Your task to perform on an android device: toggle notification dots Image 0: 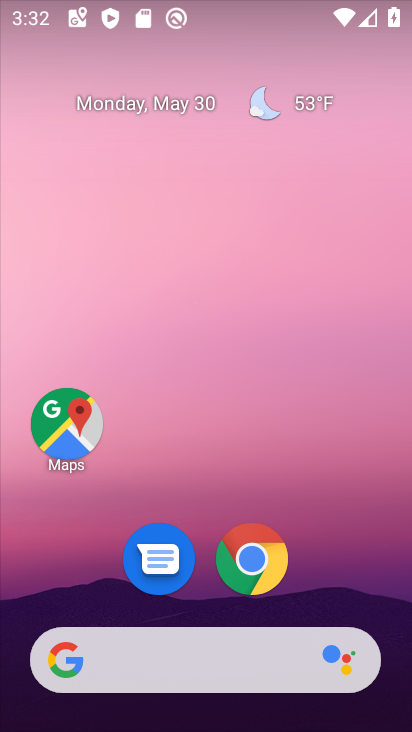
Step 0: drag from (228, 726) to (229, 32)
Your task to perform on an android device: toggle notification dots Image 1: 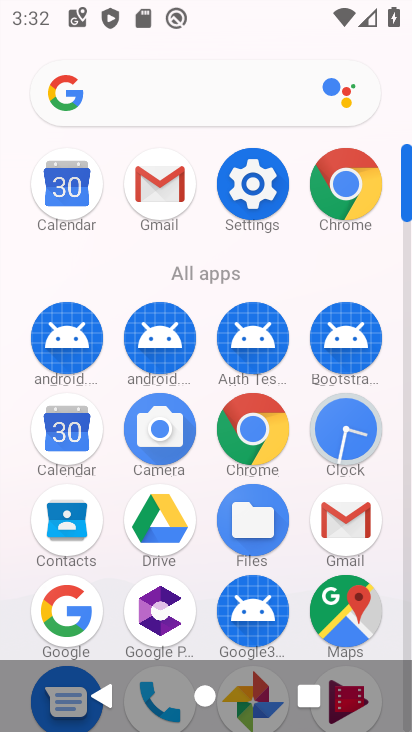
Step 1: click (256, 173)
Your task to perform on an android device: toggle notification dots Image 2: 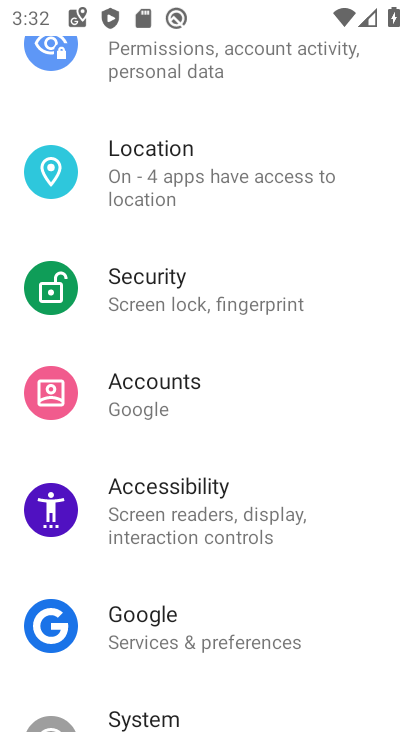
Step 2: drag from (207, 149) to (208, 475)
Your task to perform on an android device: toggle notification dots Image 3: 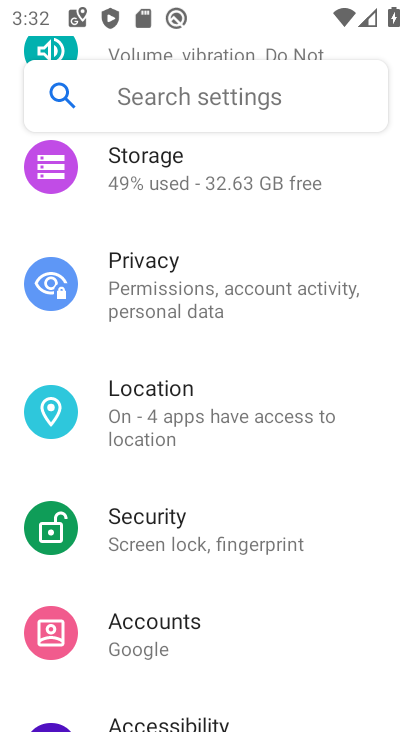
Step 3: drag from (217, 149) to (219, 550)
Your task to perform on an android device: toggle notification dots Image 4: 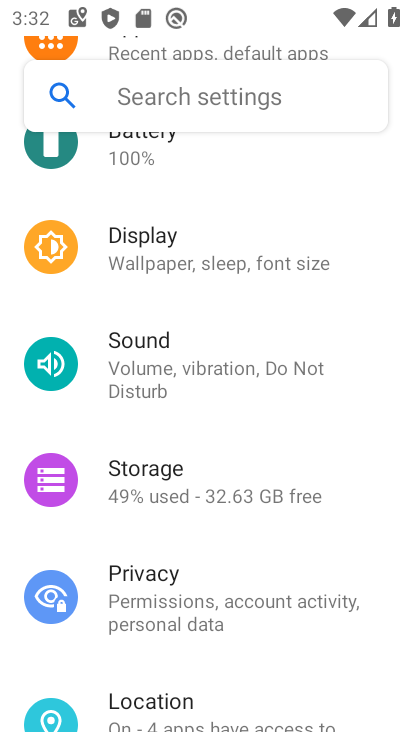
Step 4: drag from (177, 188) to (195, 606)
Your task to perform on an android device: toggle notification dots Image 5: 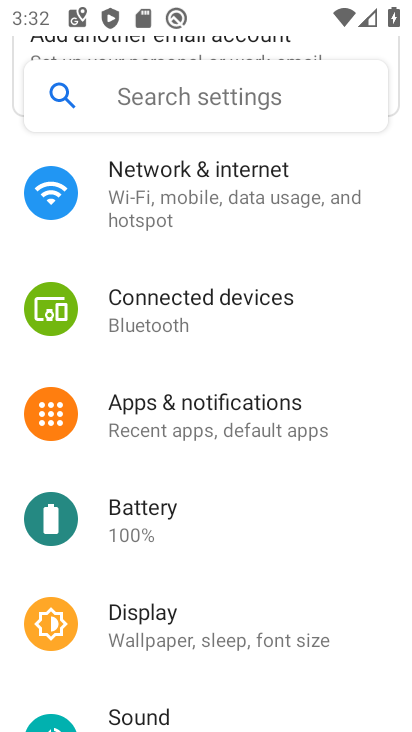
Step 5: click (183, 419)
Your task to perform on an android device: toggle notification dots Image 6: 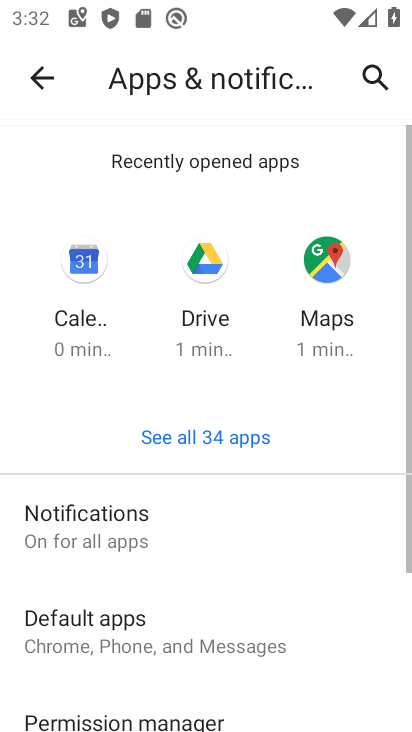
Step 6: drag from (192, 674) to (190, 380)
Your task to perform on an android device: toggle notification dots Image 7: 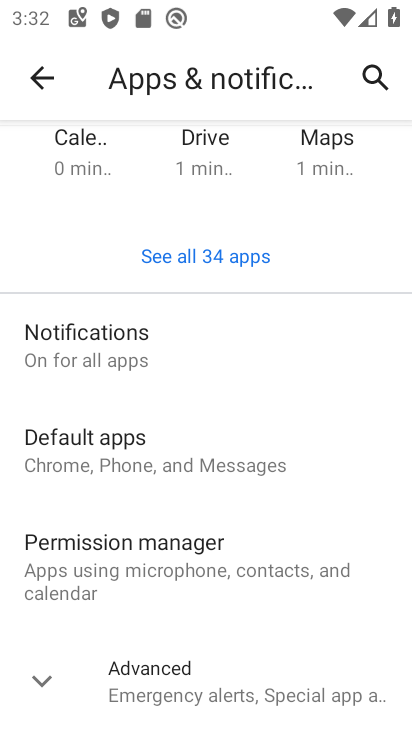
Step 7: click (68, 347)
Your task to perform on an android device: toggle notification dots Image 8: 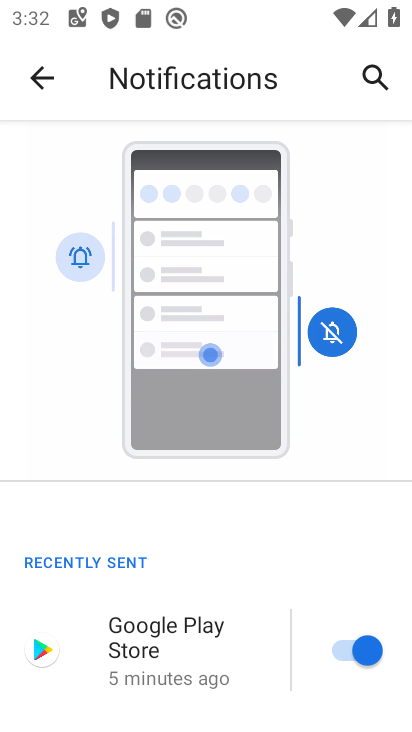
Step 8: drag from (198, 705) to (185, 256)
Your task to perform on an android device: toggle notification dots Image 9: 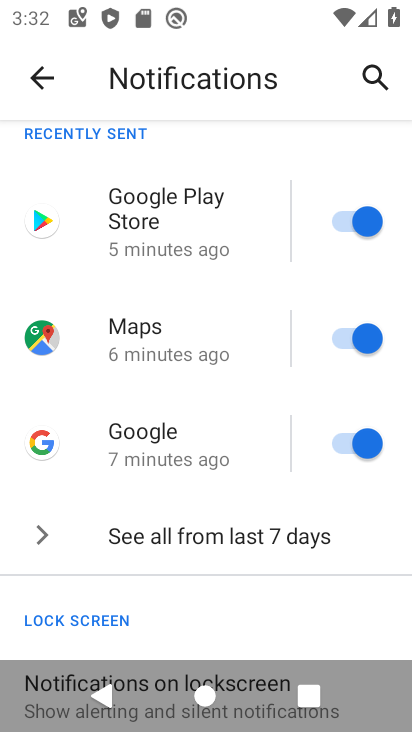
Step 9: drag from (219, 614) to (205, 469)
Your task to perform on an android device: toggle notification dots Image 10: 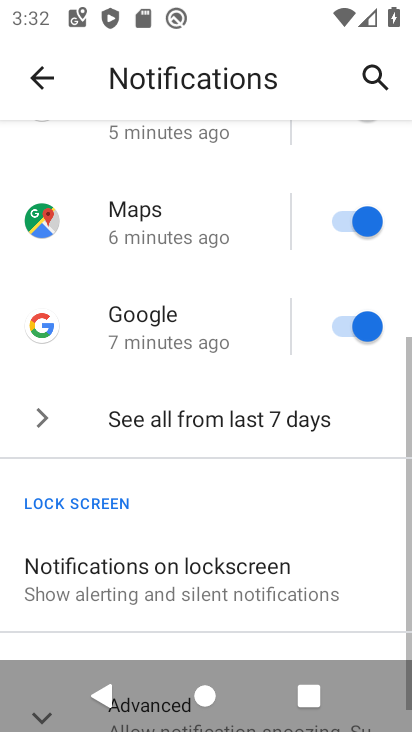
Step 10: drag from (204, 400) to (204, 322)
Your task to perform on an android device: toggle notification dots Image 11: 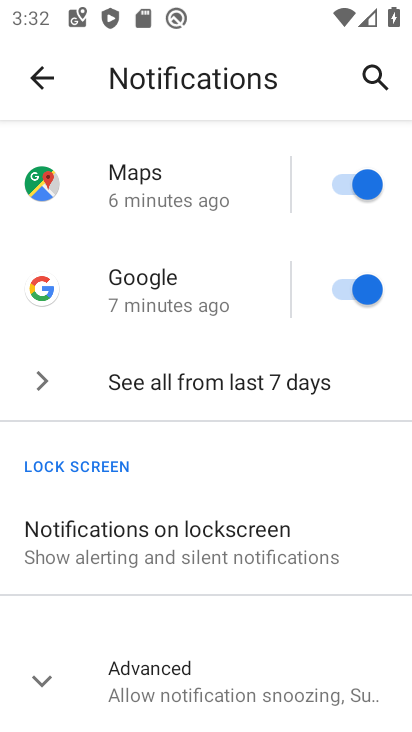
Step 11: click (171, 677)
Your task to perform on an android device: toggle notification dots Image 12: 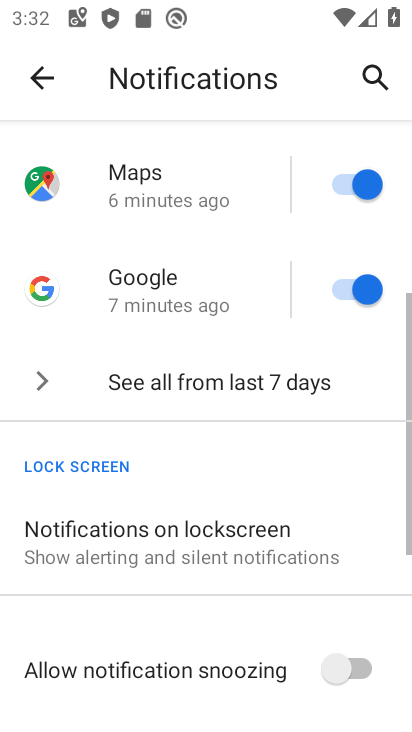
Step 12: drag from (273, 699) to (266, 313)
Your task to perform on an android device: toggle notification dots Image 13: 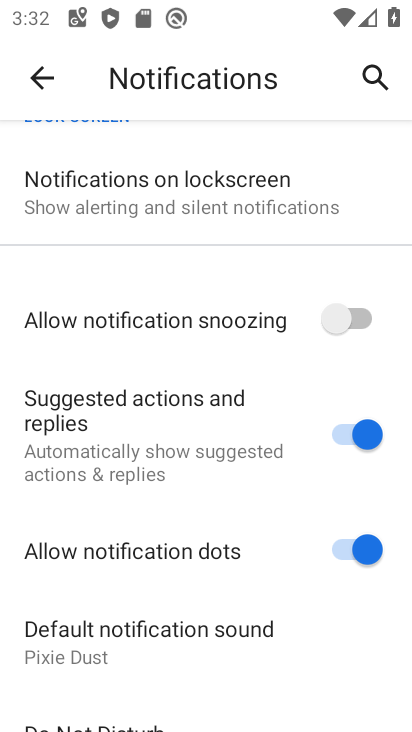
Step 13: click (350, 554)
Your task to perform on an android device: toggle notification dots Image 14: 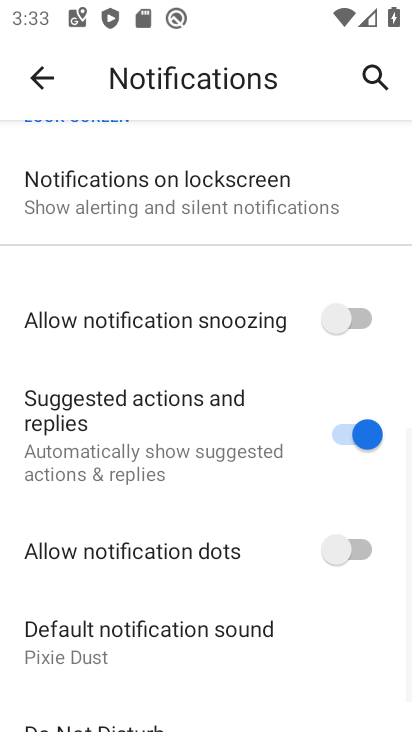
Step 14: task complete